Your task to perform on an android device: How much does the HisenseTV cost? Image 0: 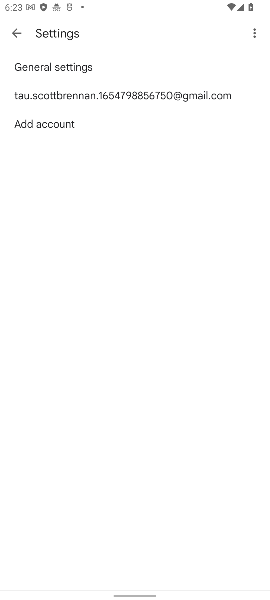
Step 0: task complete